Your task to perform on an android device: Search for pizza restaurants on Maps Image 0: 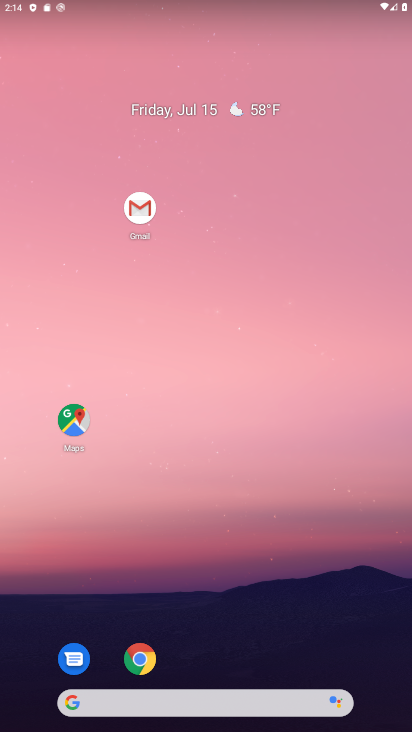
Step 0: drag from (242, 627) to (301, 208)
Your task to perform on an android device: Search for pizza restaurants on Maps Image 1: 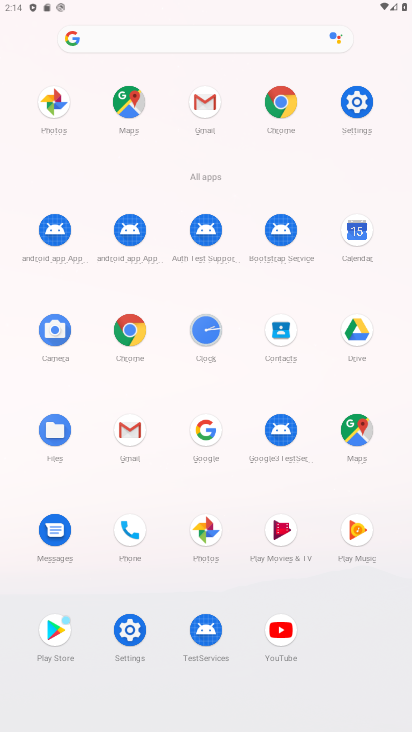
Step 1: click (122, 100)
Your task to perform on an android device: Search for pizza restaurants on Maps Image 2: 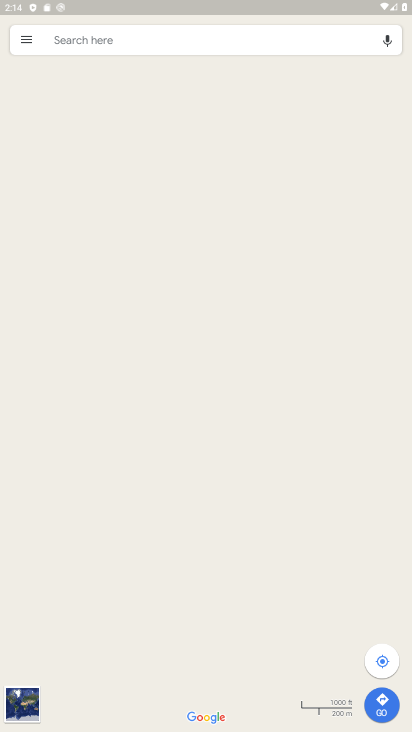
Step 2: click (173, 45)
Your task to perform on an android device: Search for pizza restaurants on Maps Image 3: 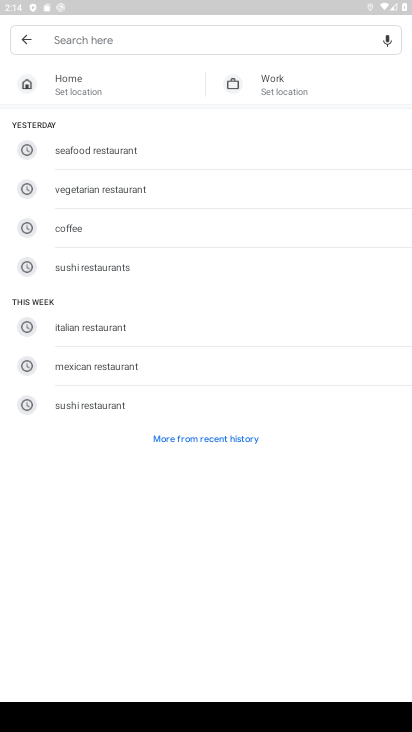
Step 3: type "pizza restaurantss"
Your task to perform on an android device: Search for pizza restaurants on Maps Image 4: 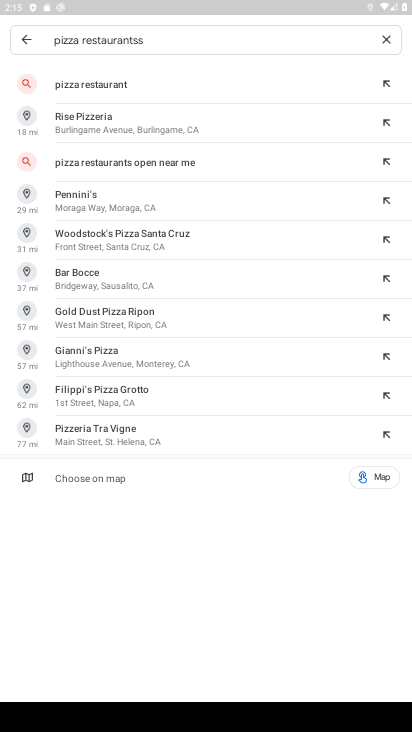
Step 4: click (169, 85)
Your task to perform on an android device: Search for pizza restaurants on Maps Image 5: 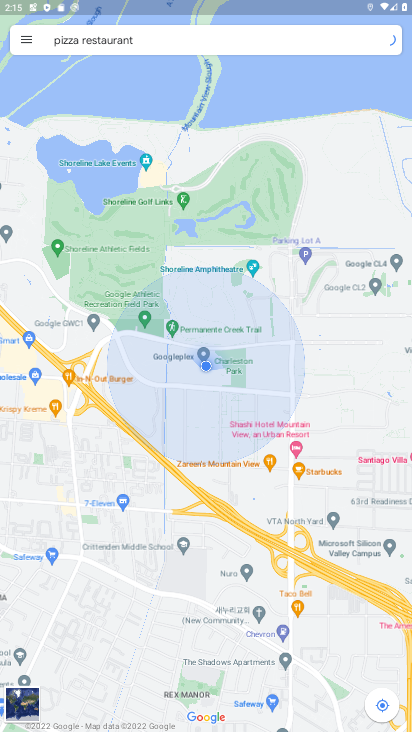
Step 5: task complete